Your task to perform on an android device: toggle priority inbox in the gmail app Image 0: 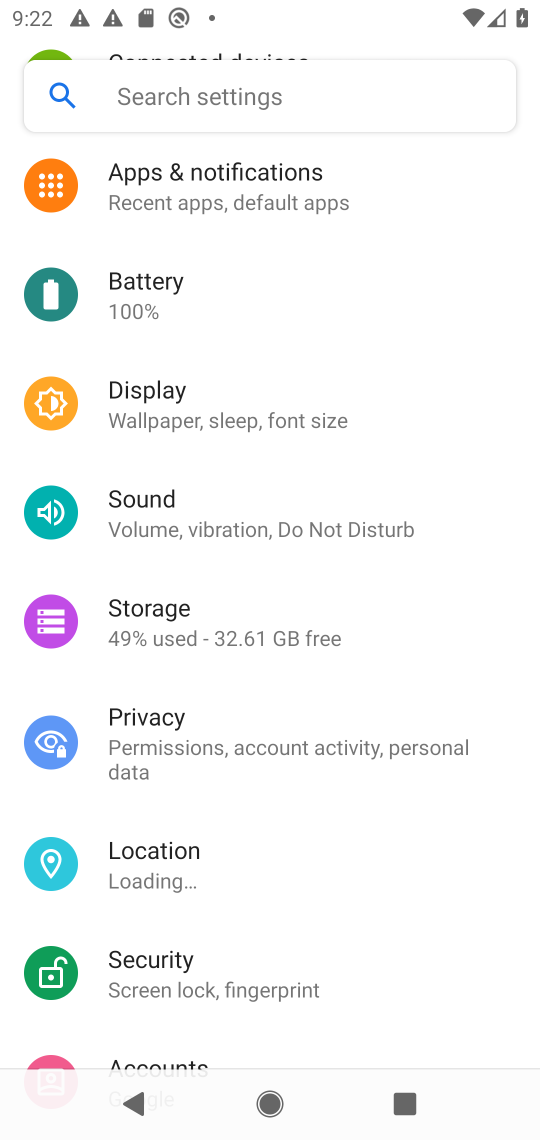
Step 0: press home button
Your task to perform on an android device: toggle priority inbox in the gmail app Image 1: 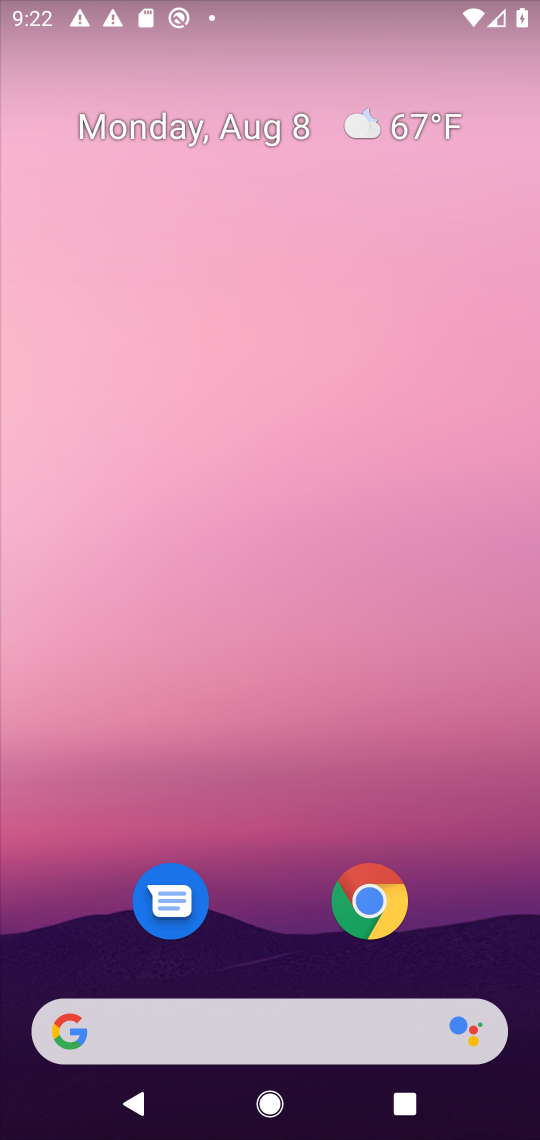
Step 1: click (295, 153)
Your task to perform on an android device: toggle priority inbox in the gmail app Image 2: 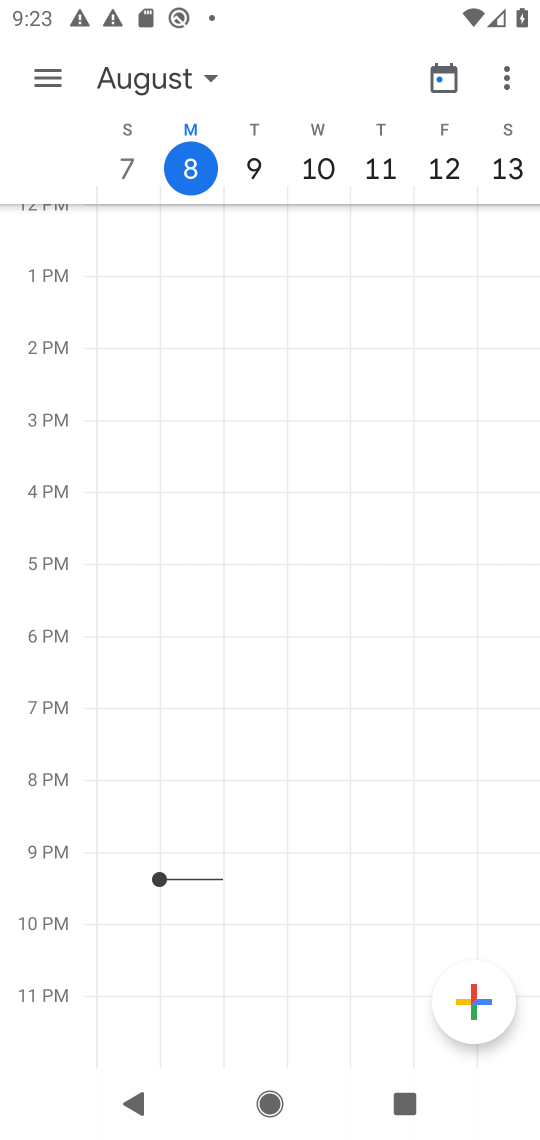
Step 2: press home button
Your task to perform on an android device: toggle priority inbox in the gmail app Image 3: 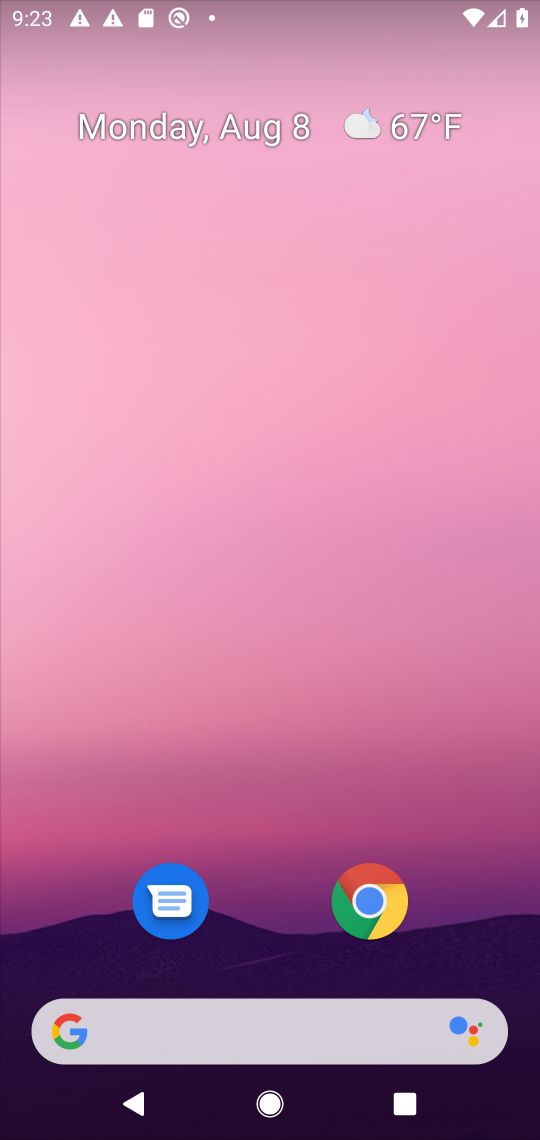
Step 3: drag from (231, 582) to (295, 52)
Your task to perform on an android device: toggle priority inbox in the gmail app Image 4: 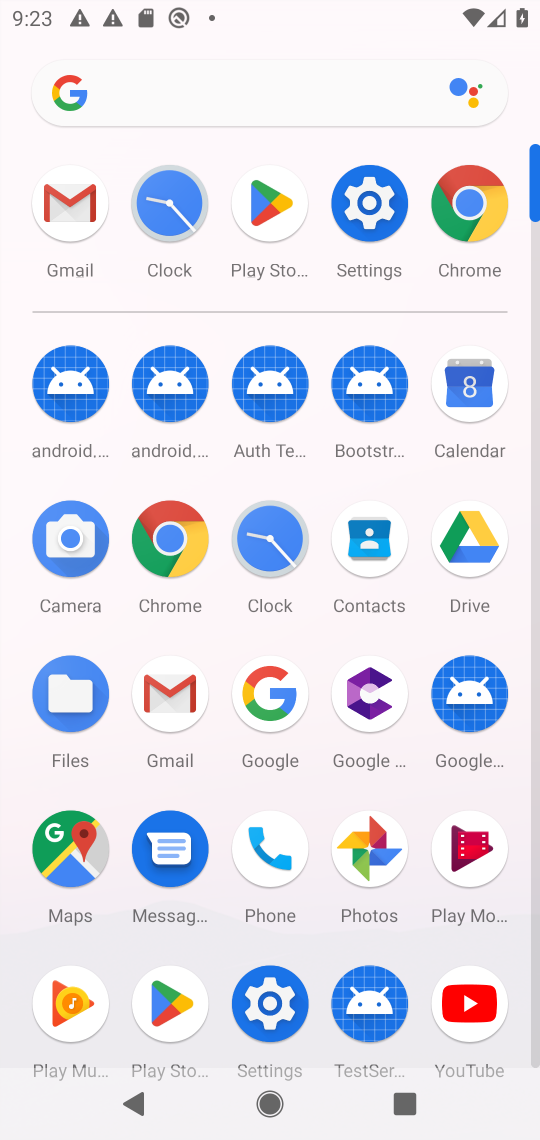
Step 4: click (66, 200)
Your task to perform on an android device: toggle priority inbox in the gmail app Image 5: 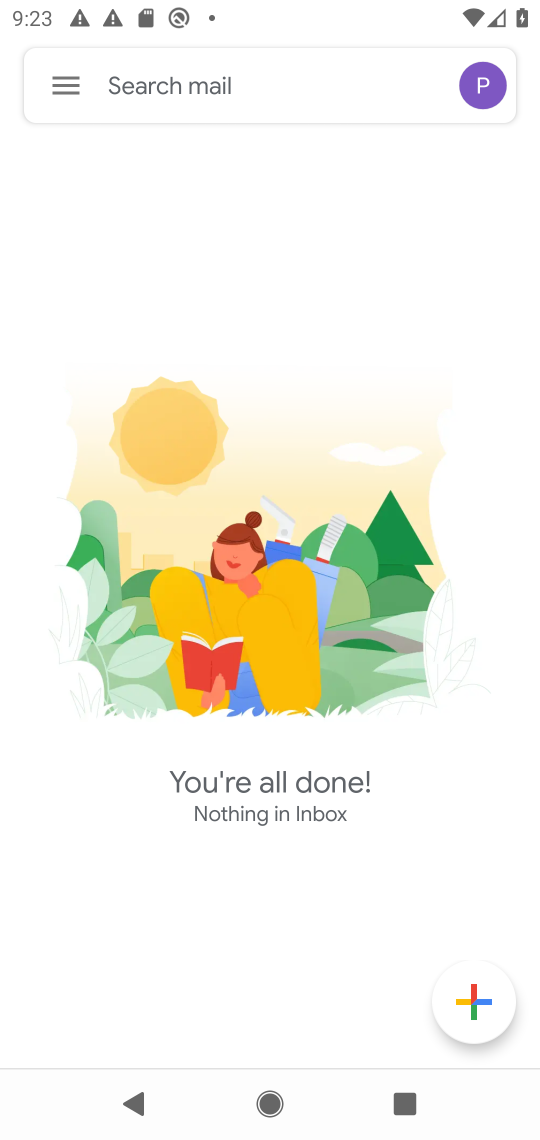
Step 5: click (64, 77)
Your task to perform on an android device: toggle priority inbox in the gmail app Image 6: 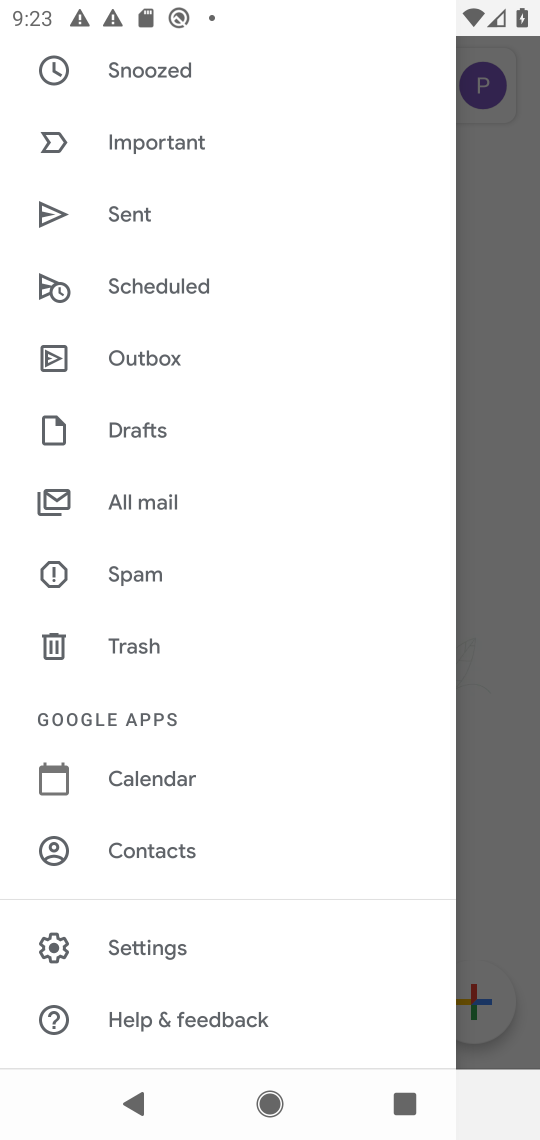
Step 6: click (132, 949)
Your task to perform on an android device: toggle priority inbox in the gmail app Image 7: 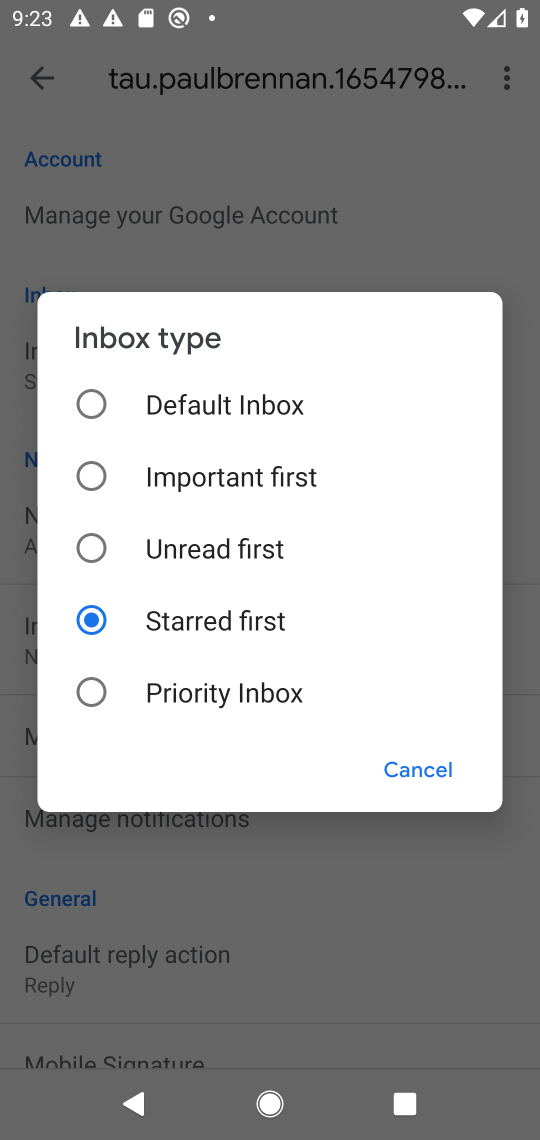
Step 7: click (91, 704)
Your task to perform on an android device: toggle priority inbox in the gmail app Image 8: 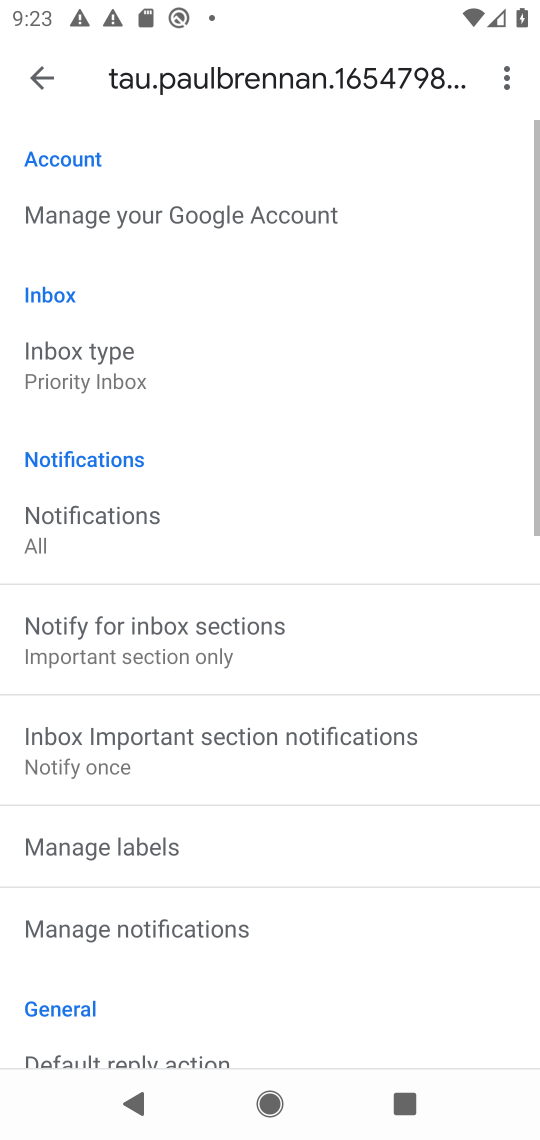
Step 8: task complete